Your task to perform on an android device: Open settings Image 0: 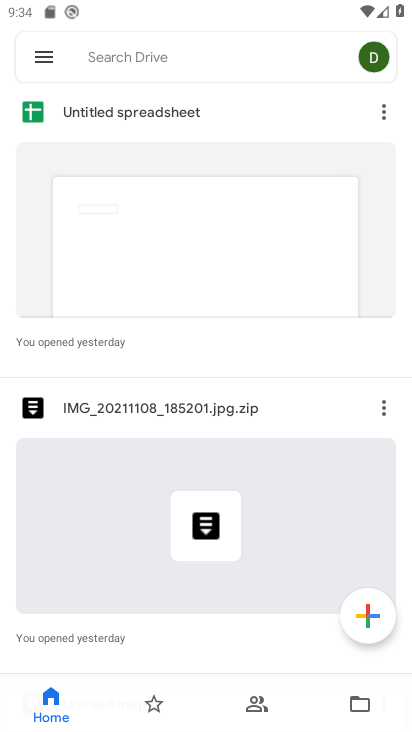
Step 0: press home button
Your task to perform on an android device: Open settings Image 1: 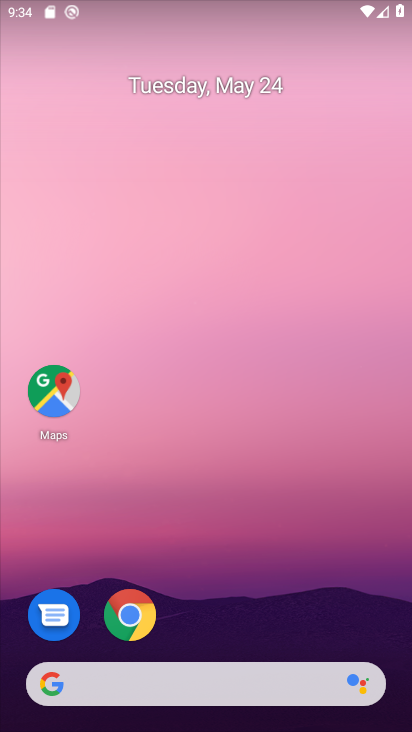
Step 1: drag from (374, 619) to (368, 221)
Your task to perform on an android device: Open settings Image 2: 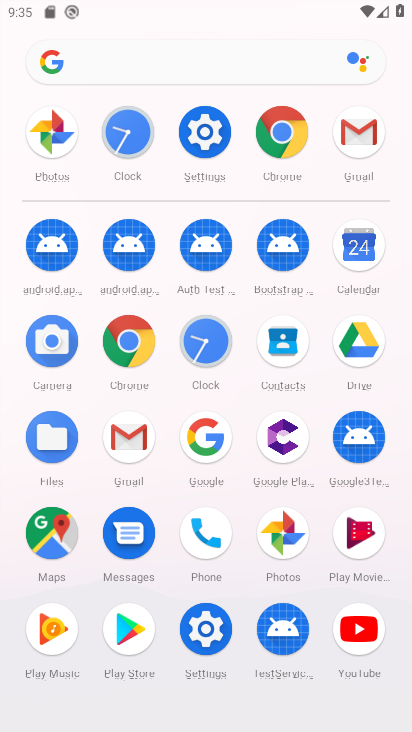
Step 2: click (214, 648)
Your task to perform on an android device: Open settings Image 3: 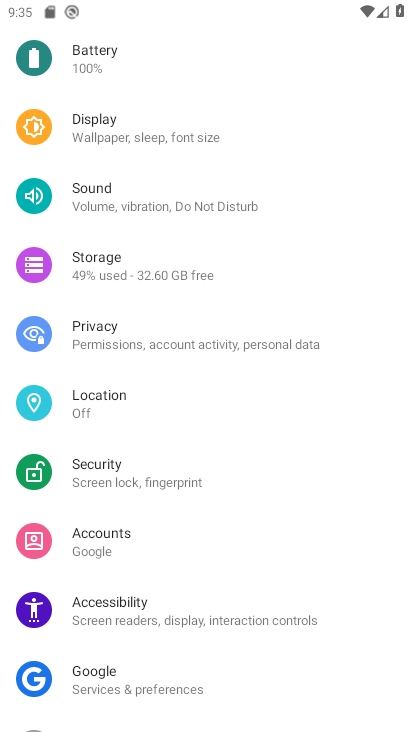
Step 3: task complete